Your task to perform on an android device: turn on data saver in the chrome app Image 0: 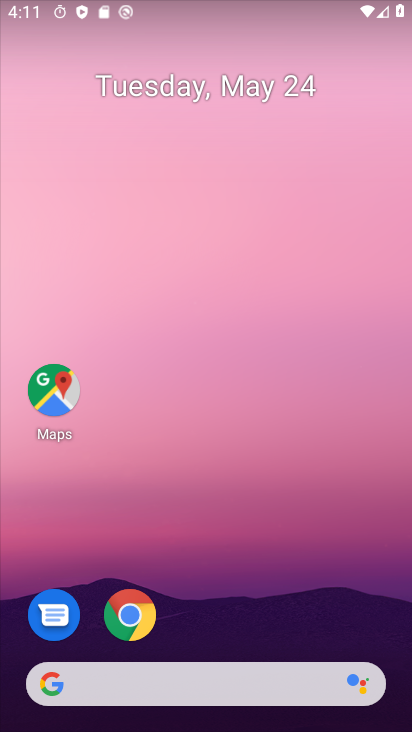
Step 0: click (133, 600)
Your task to perform on an android device: turn on data saver in the chrome app Image 1: 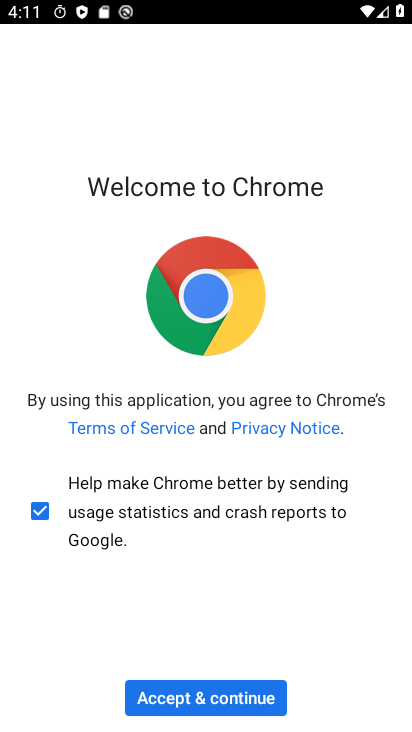
Step 1: click (172, 699)
Your task to perform on an android device: turn on data saver in the chrome app Image 2: 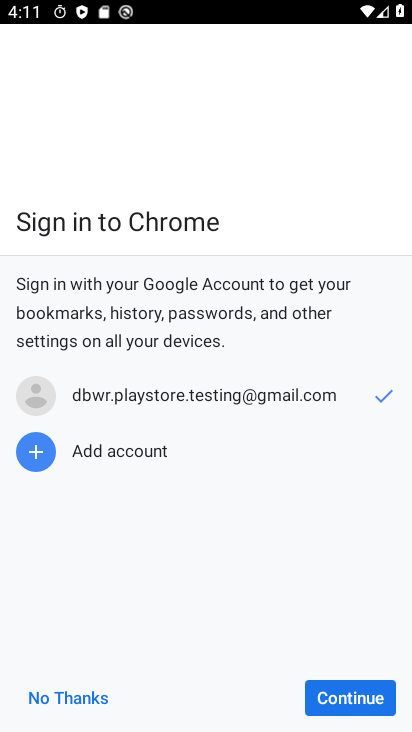
Step 2: click (341, 694)
Your task to perform on an android device: turn on data saver in the chrome app Image 3: 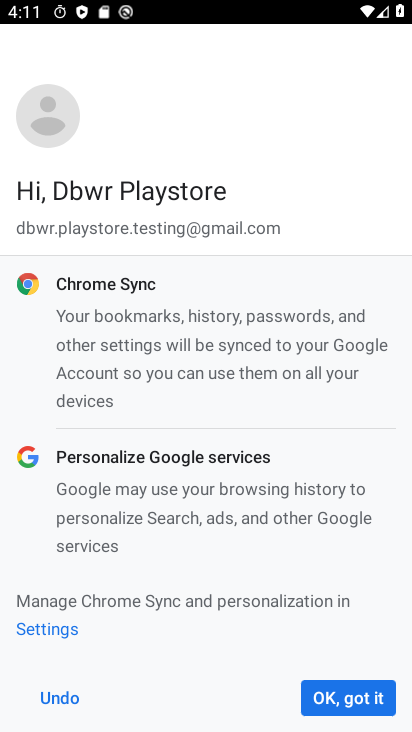
Step 3: click (368, 696)
Your task to perform on an android device: turn on data saver in the chrome app Image 4: 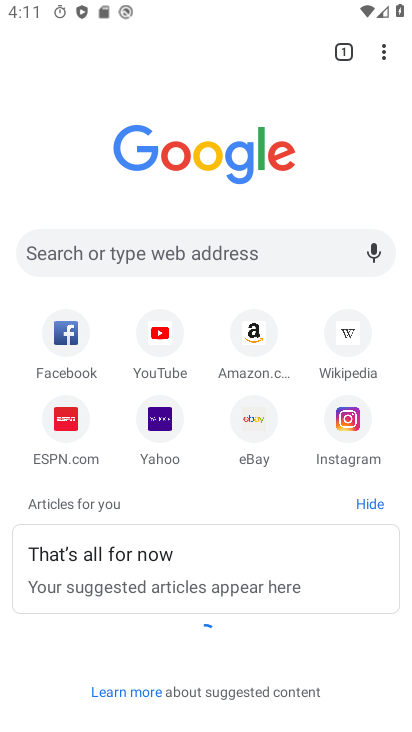
Step 4: drag from (383, 49) to (205, 444)
Your task to perform on an android device: turn on data saver in the chrome app Image 5: 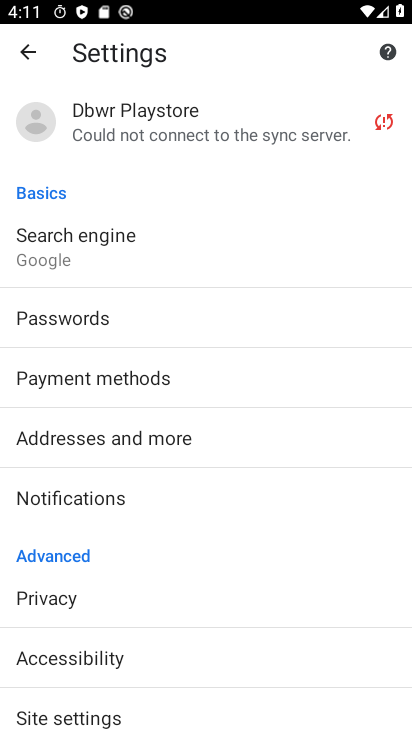
Step 5: drag from (164, 635) to (217, 159)
Your task to perform on an android device: turn on data saver in the chrome app Image 6: 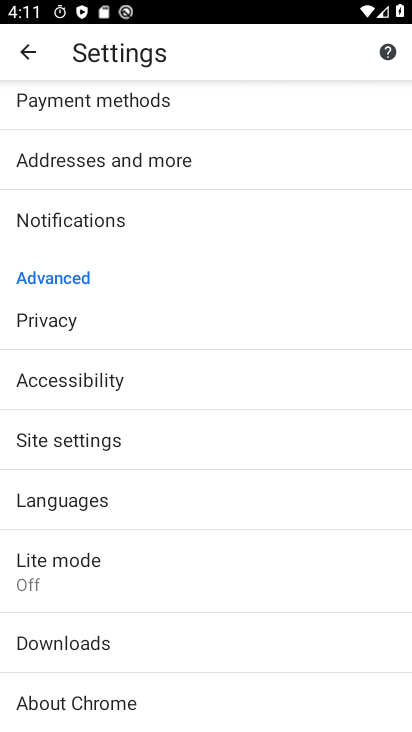
Step 6: click (42, 563)
Your task to perform on an android device: turn on data saver in the chrome app Image 7: 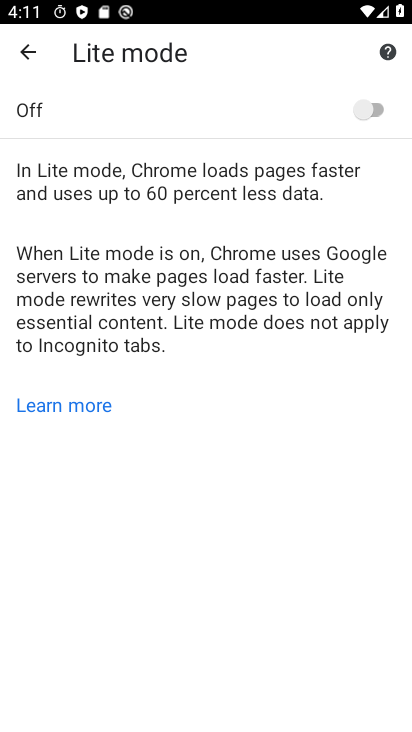
Step 7: click (368, 105)
Your task to perform on an android device: turn on data saver in the chrome app Image 8: 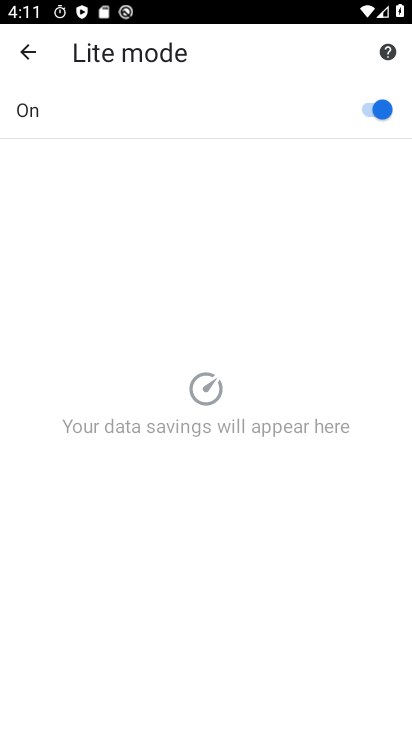
Step 8: task complete